Your task to perform on an android device: See recent photos Image 0: 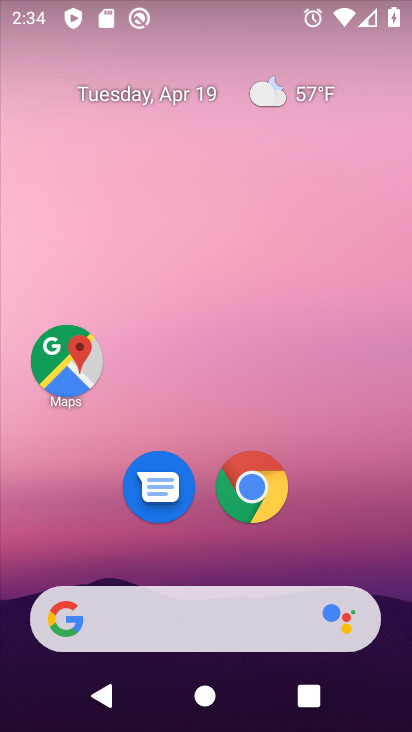
Step 0: click (373, 119)
Your task to perform on an android device: See recent photos Image 1: 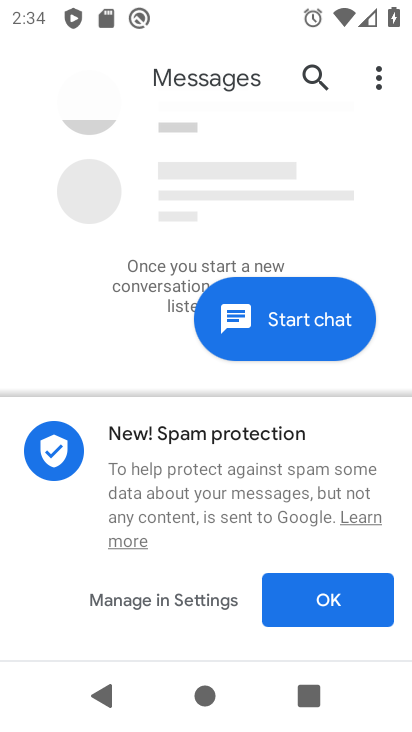
Step 1: press home button
Your task to perform on an android device: See recent photos Image 2: 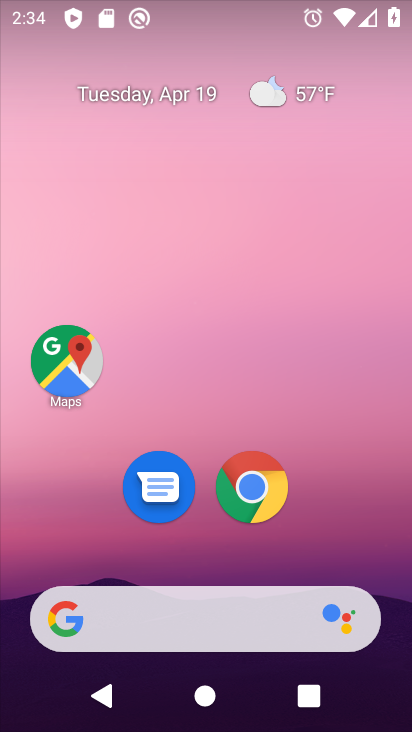
Step 2: drag from (350, 510) to (349, 98)
Your task to perform on an android device: See recent photos Image 3: 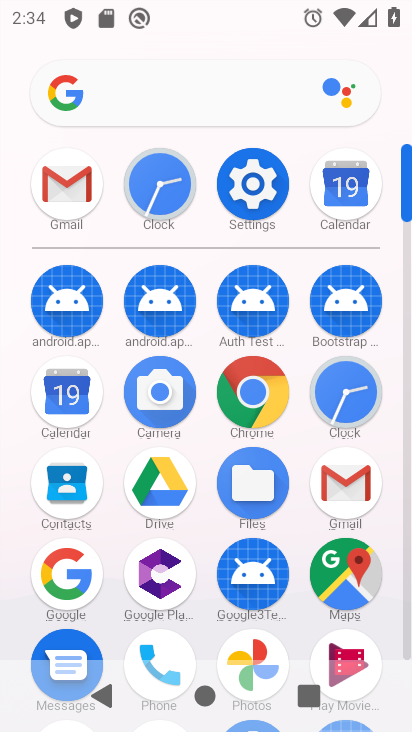
Step 3: click (248, 647)
Your task to perform on an android device: See recent photos Image 4: 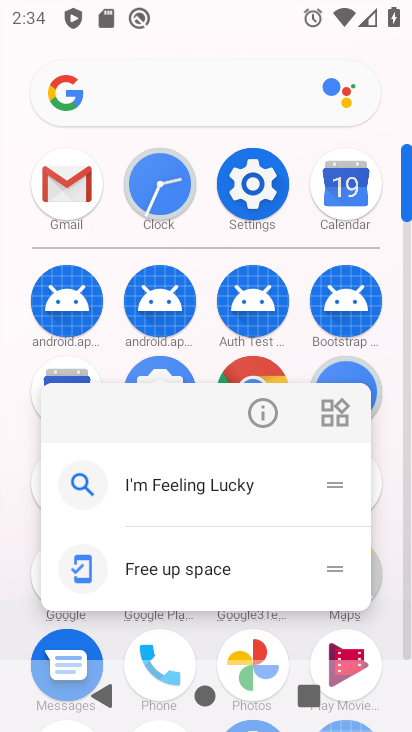
Step 4: click (260, 653)
Your task to perform on an android device: See recent photos Image 5: 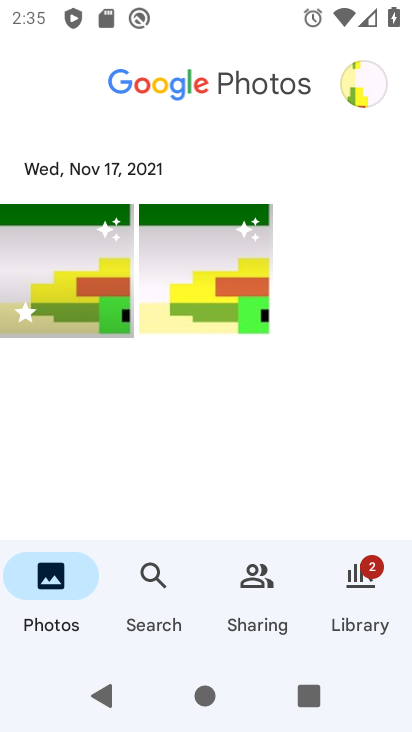
Step 5: task complete